Your task to perform on an android device: check out phone information Image 0: 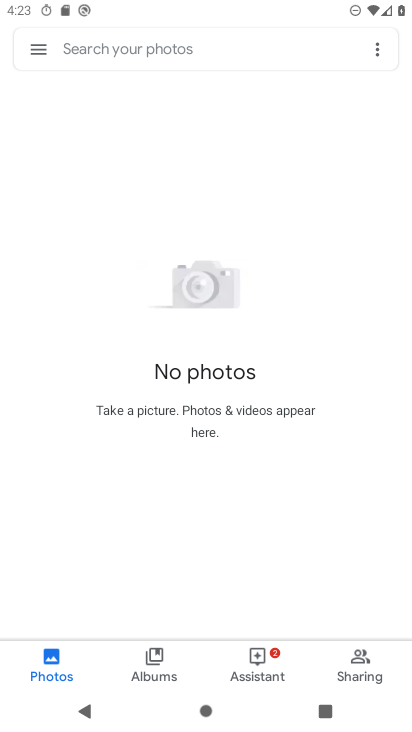
Step 0: press home button
Your task to perform on an android device: check out phone information Image 1: 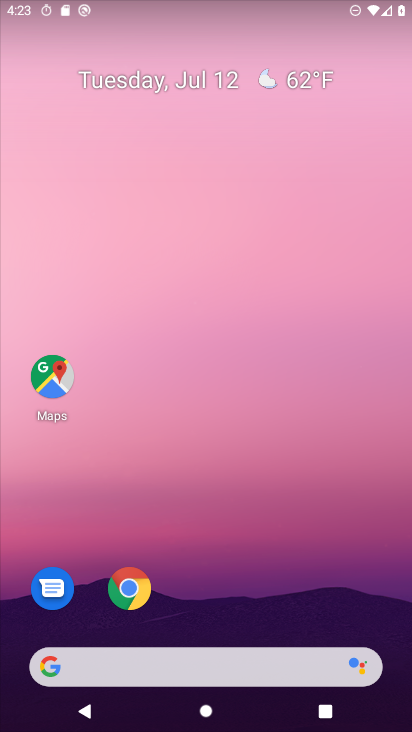
Step 1: drag from (236, 557) to (366, 12)
Your task to perform on an android device: check out phone information Image 2: 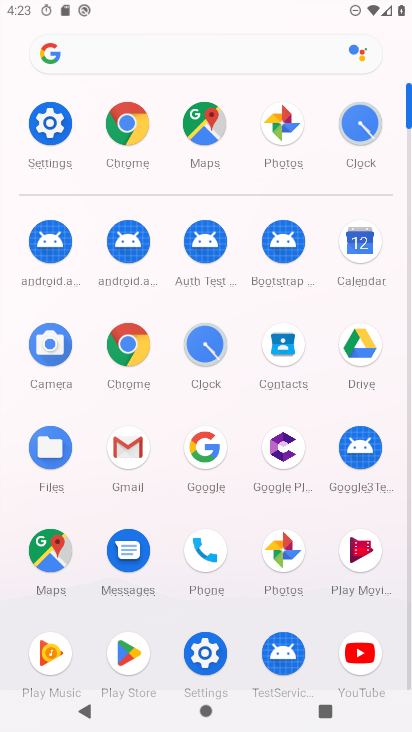
Step 2: click (57, 139)
Your task to perform on an android device: check out phone information Image 3: 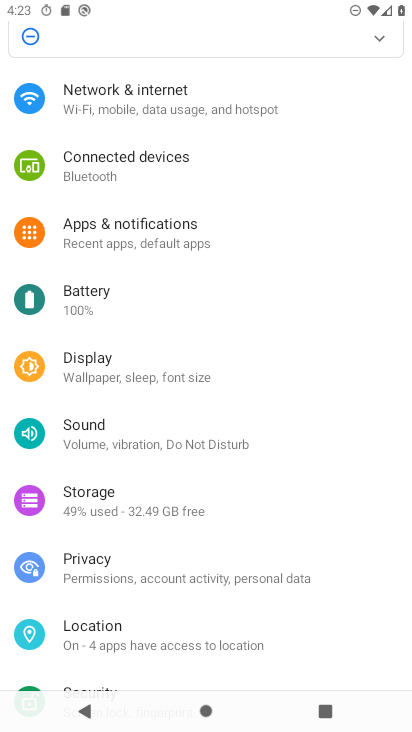
Step 3: drag from (126, 658) to (214, 115)
Your task to perform on an android device: check out phone information Image 4: 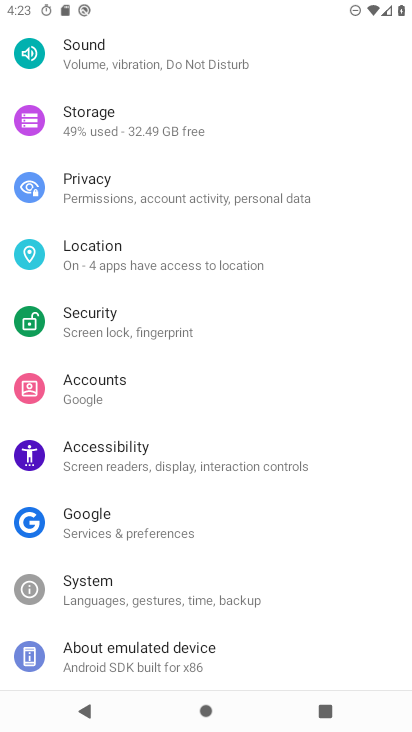
Step 4: drag from (224, 629) to (263, 427)
Your task to perform on an android device: check out phone information Image 5: 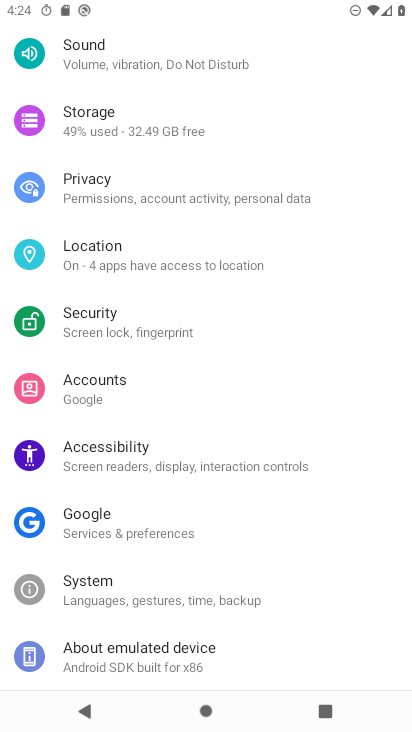
Step 5: click (152, 662)
Your task to perform on an android device: check out phone information Image 6: 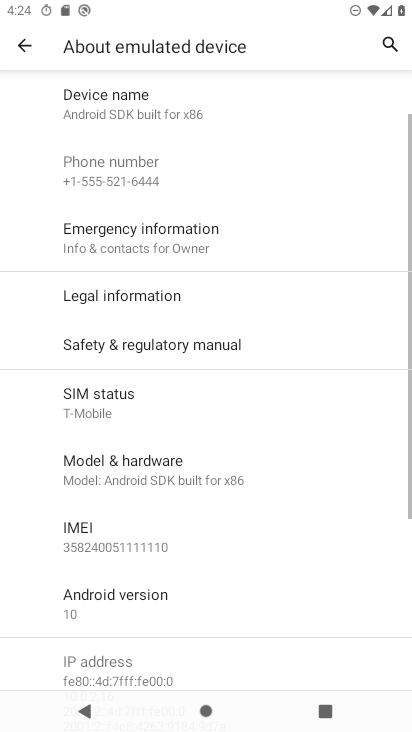
Step 6: task complete